Your task to perform on an android device: Open Google Chrome Image 0: 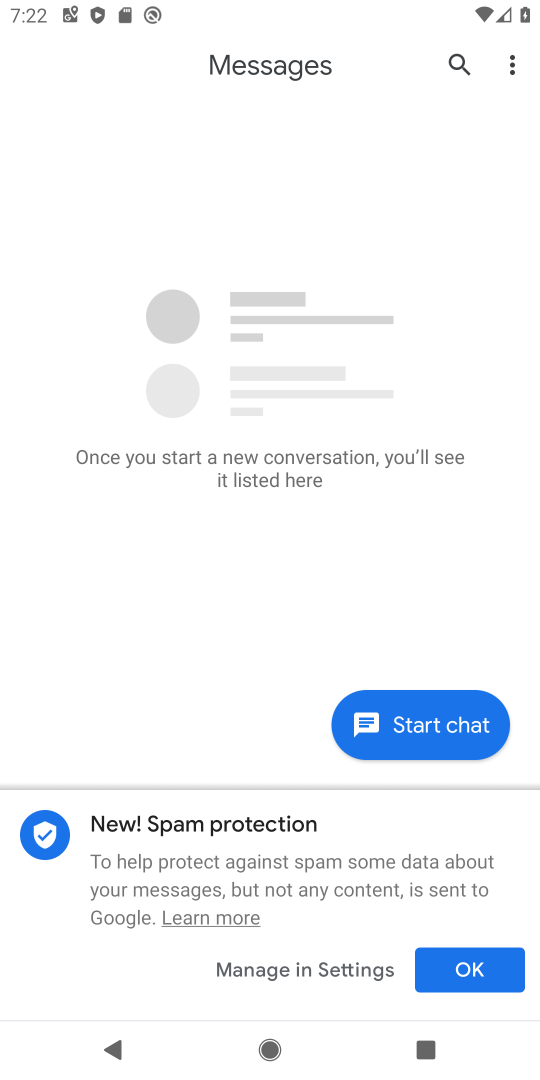
Step 0: press home button
Your task to perform on an android device: Open Google Chrome Image 1: 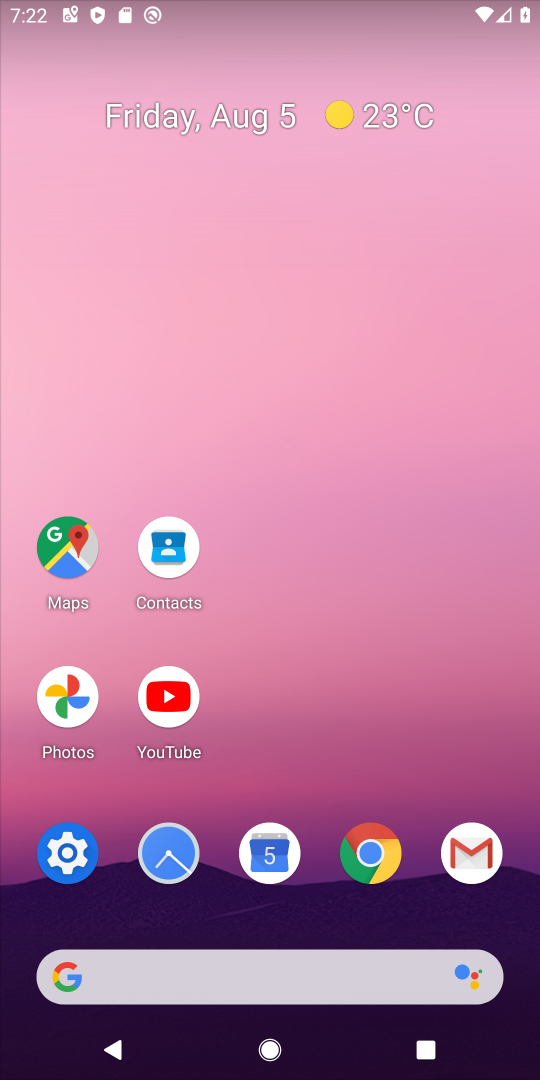
Step 1: click (374, 857)
Your task to perform on an android device: Open Google Chrome Image 2: 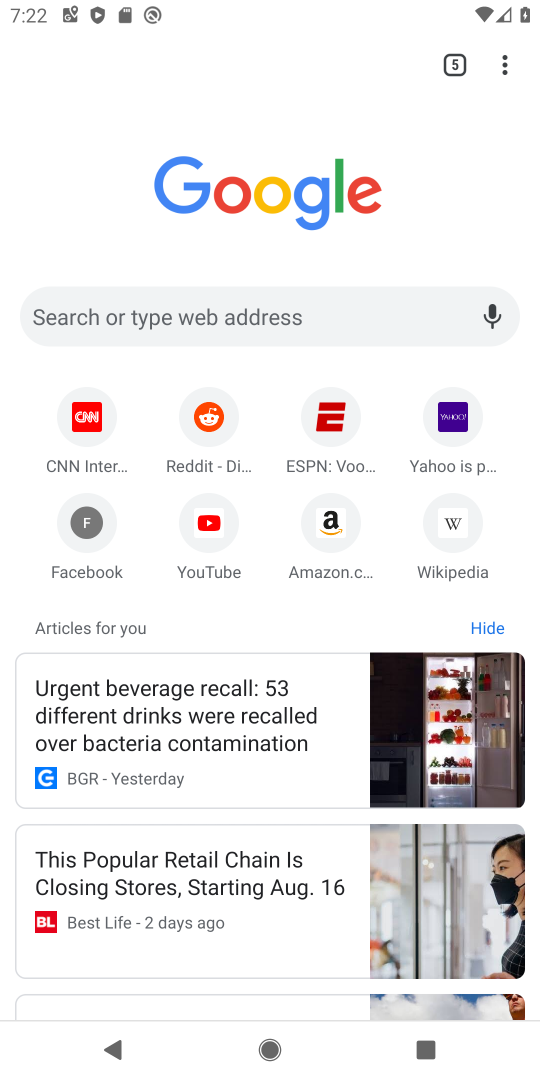
Step 2: task complete